Your task to perform on an android device: Open internet settings Image 0: 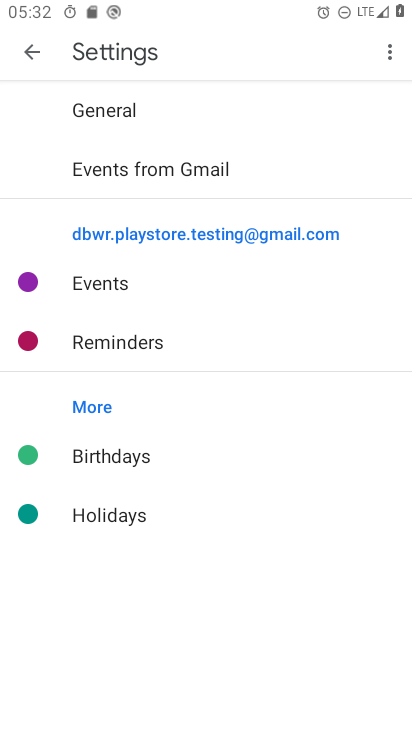
Step 0: press home button
Your task to perform on an android device: Open internet settings Image 1: 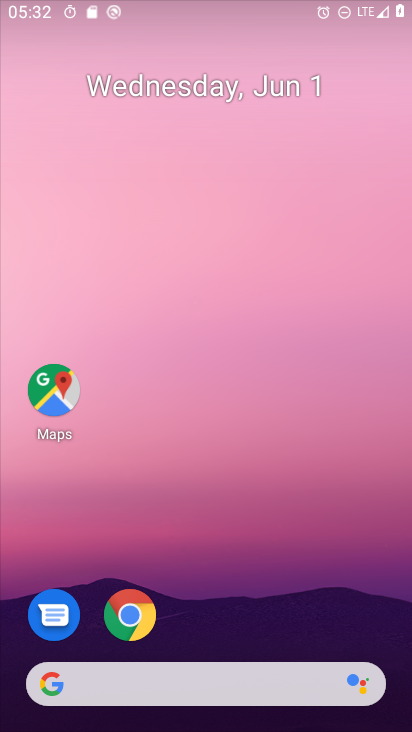
Step 1: drag from (315, 686) to (334, 4)
Your task to perform on an android device: Open internet settings Image 2: 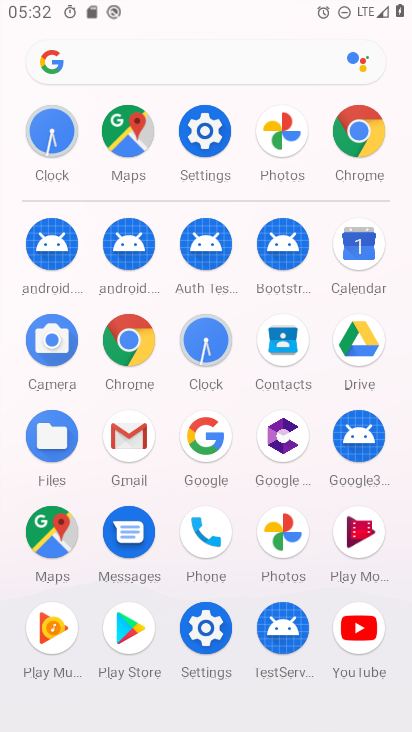
Step 2: click (220, 129)
Your task to perform on an android device: Open internet settings Image 3: 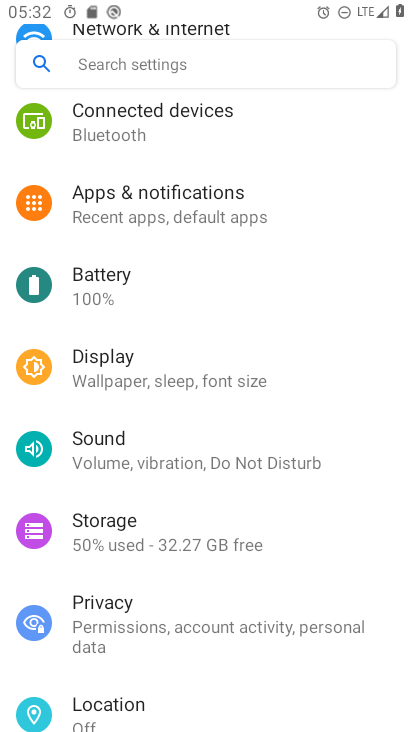
Step 3: drag from (265, 219) to (178, 729)
Your task to perform on an android device: Open internet settings Image 4: 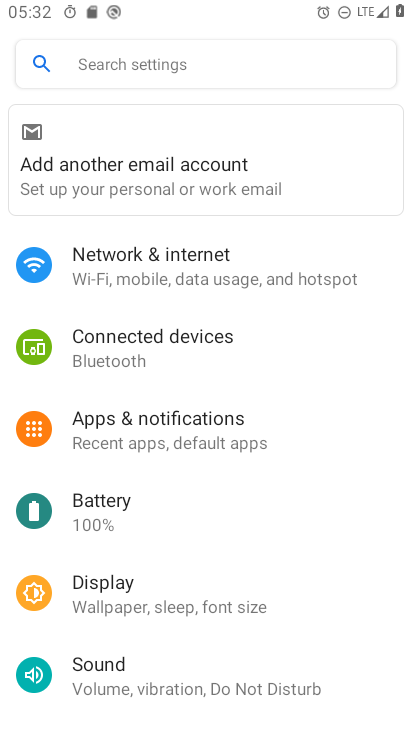
Step 4: click (216, 266)
Your task to perform on an android device: Open internet settings Image 5: 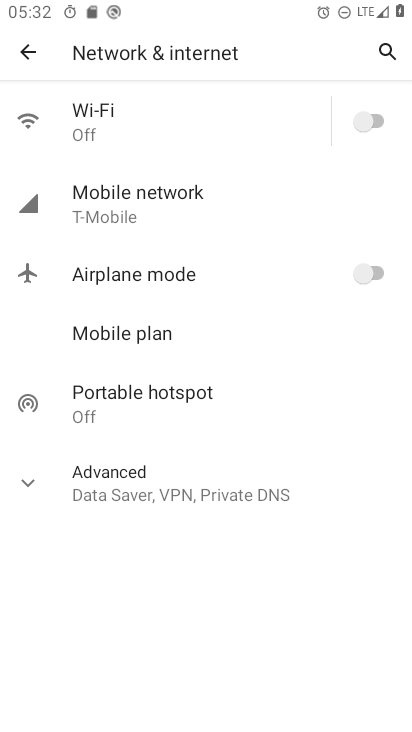
Step 5: task complete